Your task to perform on an android device: visit the assistant section in the google photos Image 0: 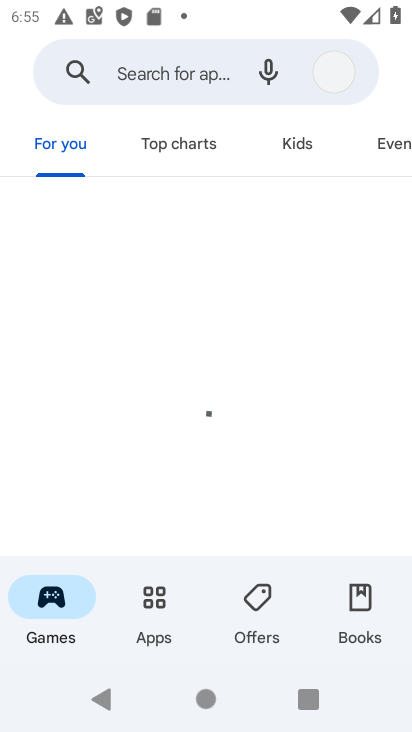
Step 0: press home button
Your task to perform on an android device: visit the assistant section in the google photos Image 1: 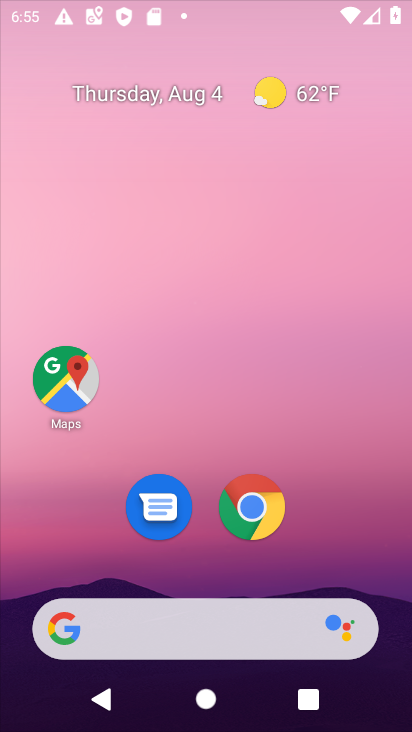
Step 1: drag from (392, 618) to (264, 1)
Your task to perform on an android device: visit the assistant section in the google photos Image 2: 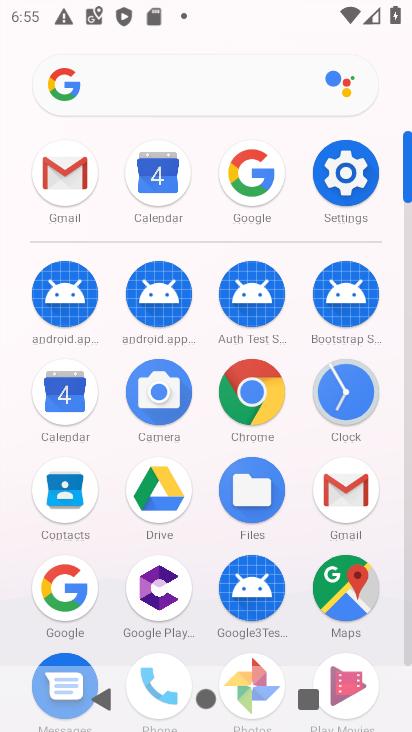
Step 2: drag from (217, 642) to (195, 119)
Your task to perform on an android device: visit the assistant section in the google photos Image 3: 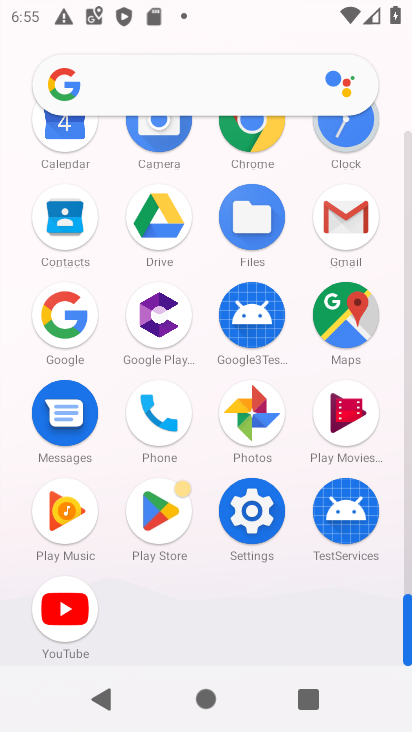
Step 3: click (260, 410)
Your task to perform on an android device: visit the assistant section in the google photos Image 4: 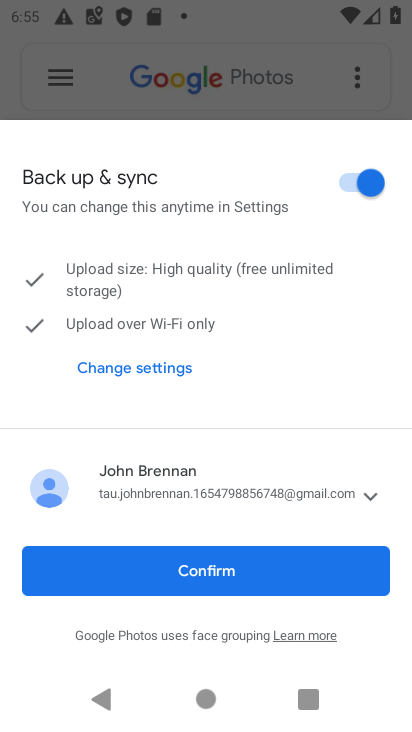
Step 4: click (223, 546)
Your task to perform on an android device: visit the assistant section in the google photos Image 5: 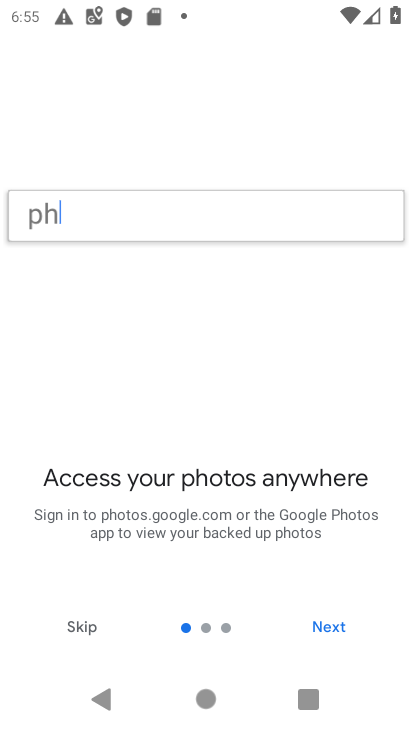
Step 5: click (249, 626)
Your task to perform on an android device: visit the assistant section in the google photos Image 6: 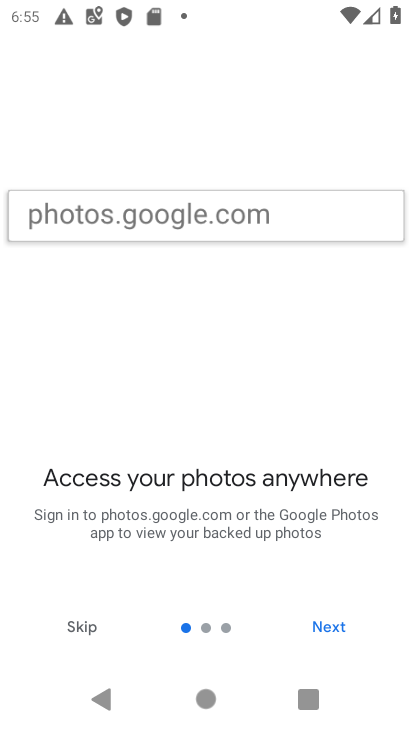
Step 6: click (322, 625)
Your task to perform on an android device: visit the assistant section in the google photos Image 7: 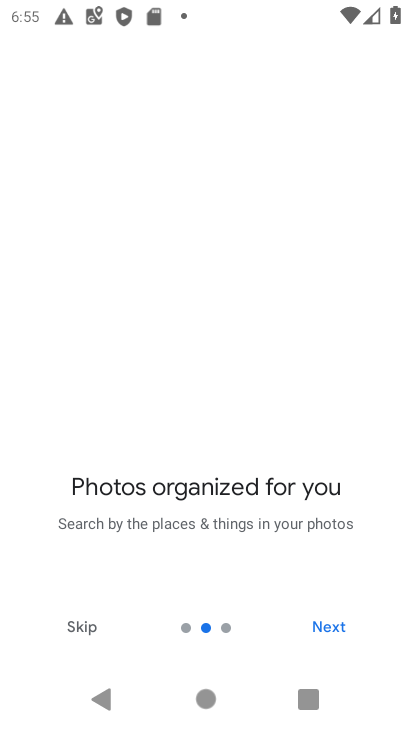
Step 7: click (322, 625)
Your task to perform on an android device: visit the assistant section in the google photos Image 8: 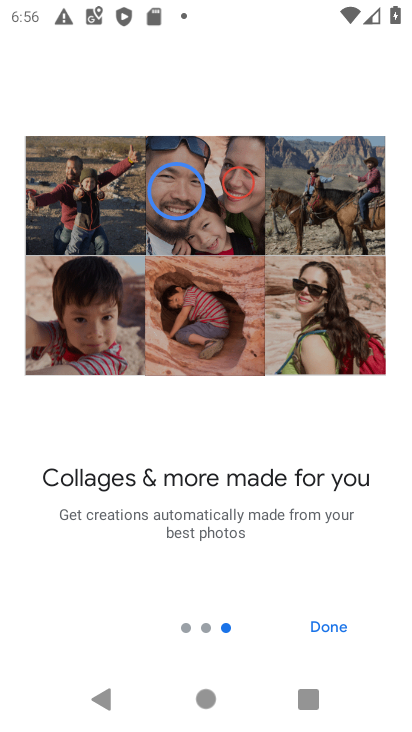
Step 8: click (322, 625)
Your task to perform on an android device: visit the assistant section in the google photos Image 9: 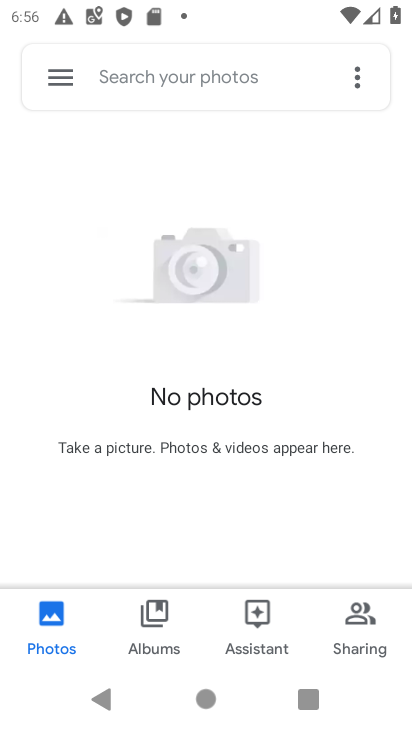
Step 9: click (273, 610)
Your task to perform on an android device: visit the assistant section in the google photos Image 10: 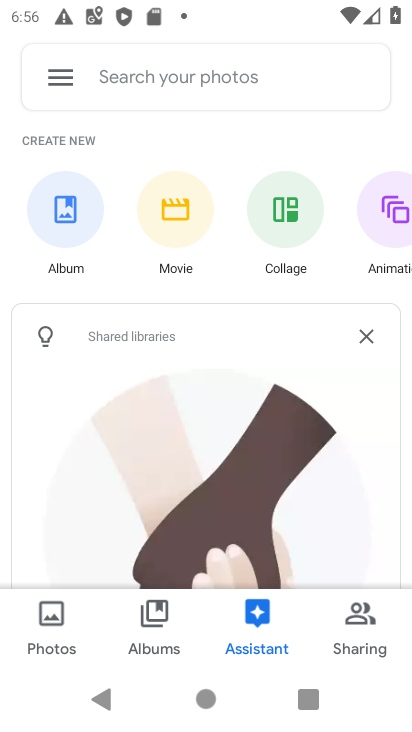
Step 10: task complete